Your task to perform on an android device: see tabs open on other devices in the chrome app Image 0: 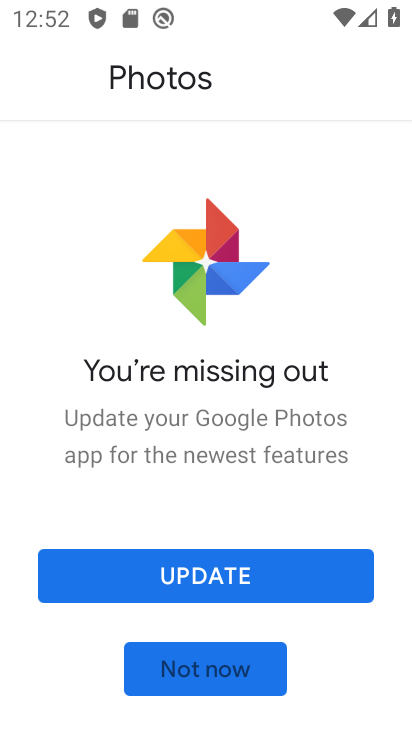
Step 0: press home button
Your task to perform on an android device: see tabs open on other devices in the chrome app Image 1: 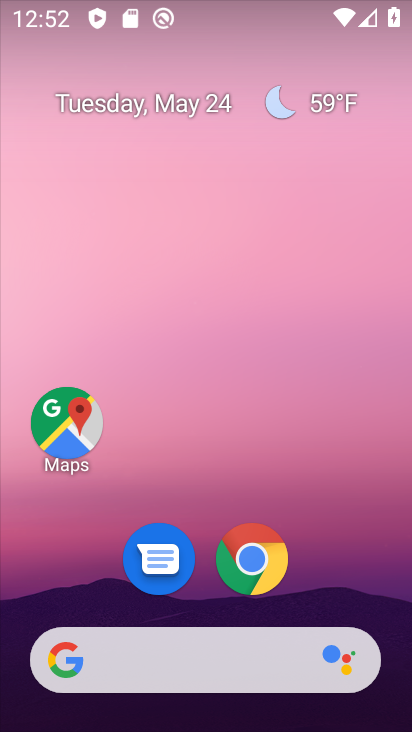
Step 1: drag from (393, 644) to (300, 37)
Your task to perform on an android device: see tabs open on other devices in the chrome app Image 2: 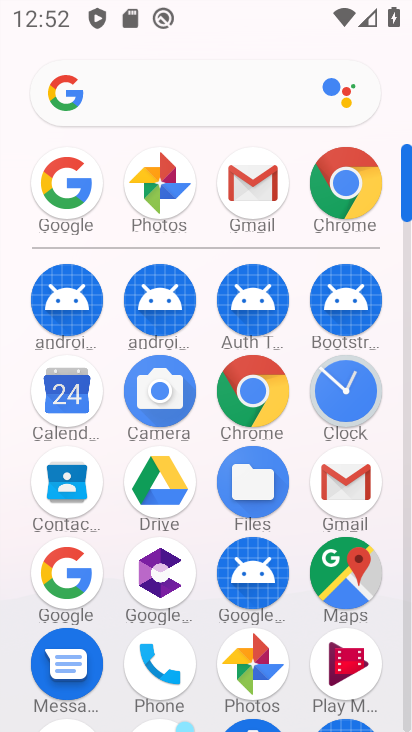
Step 2: click (265, 394)
Your task to perform on an android device: see tabs open on other devices in the chrome app Image 3: 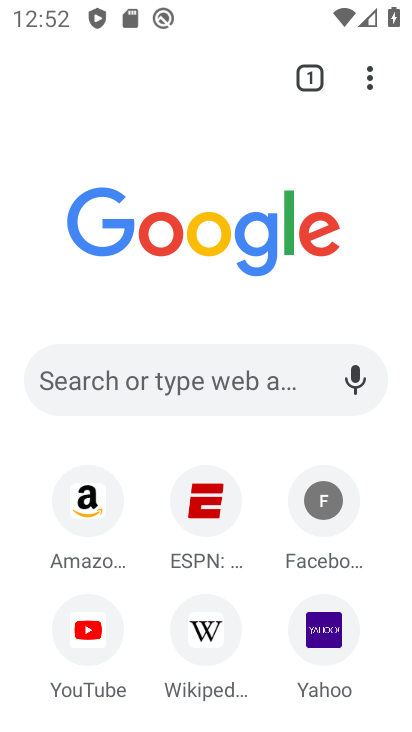
Step 3: task complete